Your task to perform on an android device: turn off location Image 0: 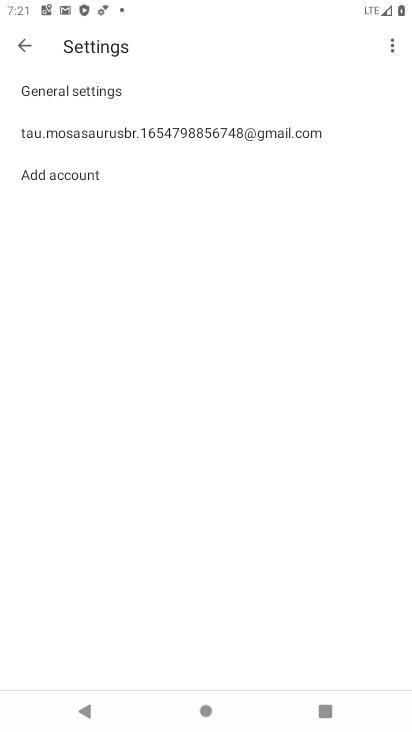
Step 0: press home button
Your task to perform on an android device: turn off location Image 1: 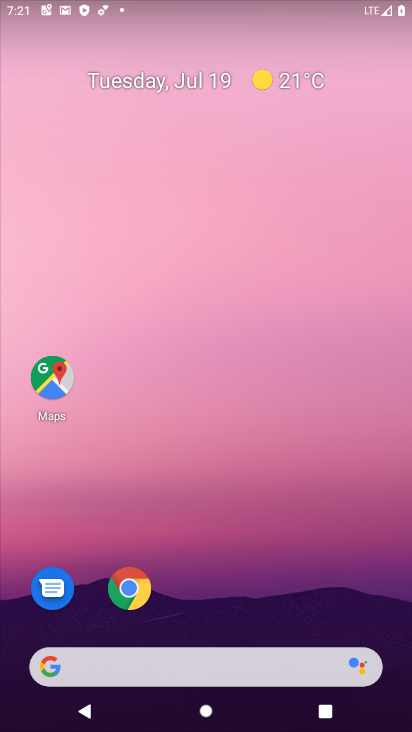
Step 1: drag from (301, 582) to (285, 95)
Your task to perform on an android device: turn off location Image 2: 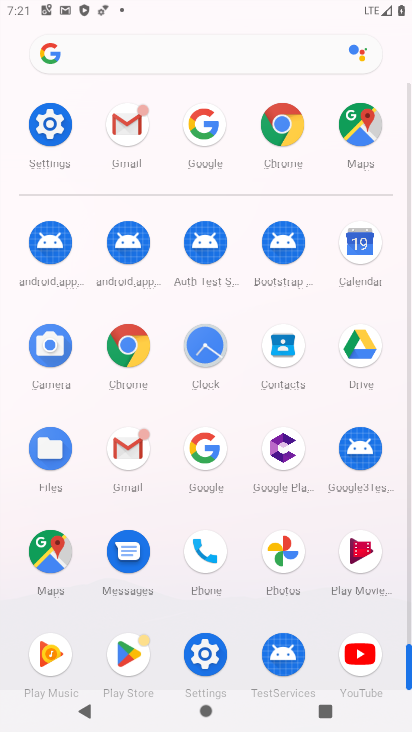
Step 2: click (211, 644)
Your task to perform on an android device: turn off location Image 3: 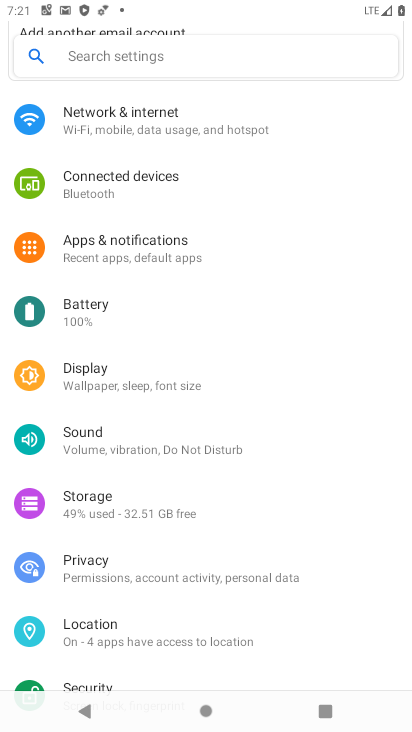
Step 3: click (128, 636)
Your task to perform on an android device: turn off location Image 4: 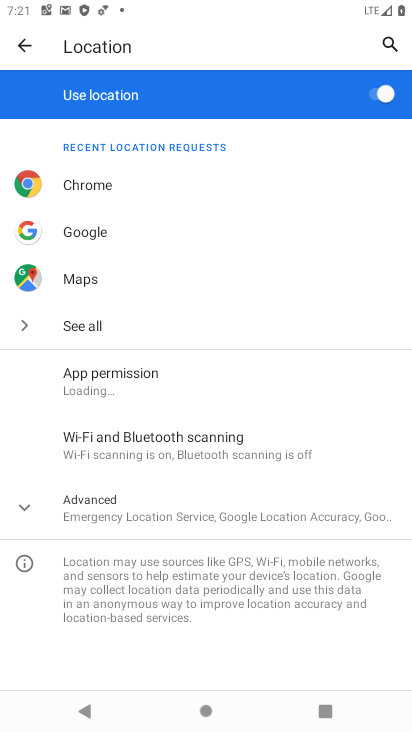
Step 4: click (382, 93)
Your task to perform on an android device: turn off location Image 5: 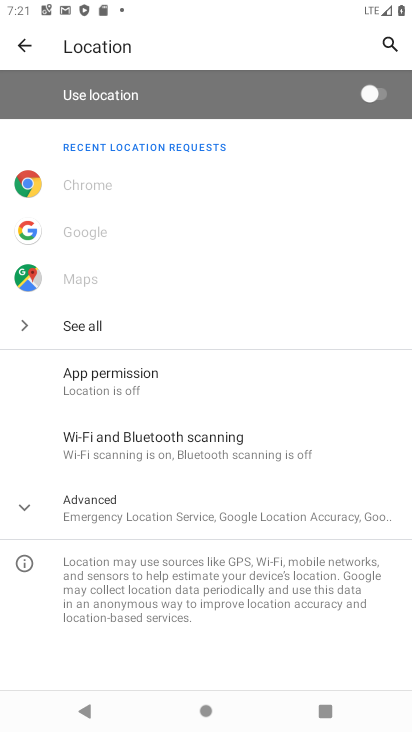
Step 5: task complete